Your task to perform on an android device: remove spam from my inbox in the gmail app Image 0: 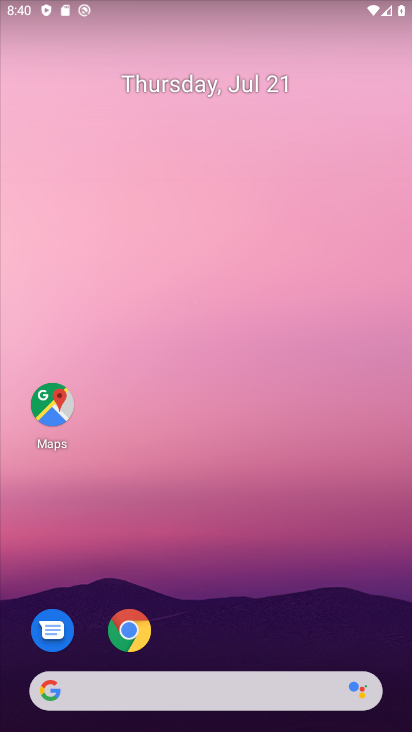
Step 0: drag from (153, 666) to (206, 219)
Your task to perform on an android device: remove spam from my inbox in the gmail app Image 1: 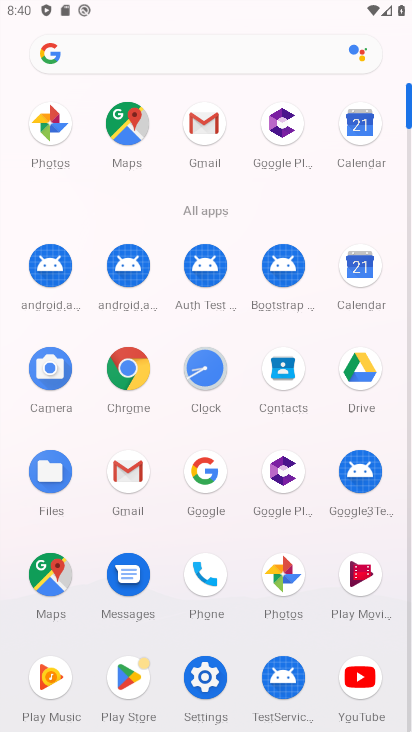
Step 1: click (128, 464)
Your task to perform on an android device: remove spam from my inbox in the gmail app Image 2: 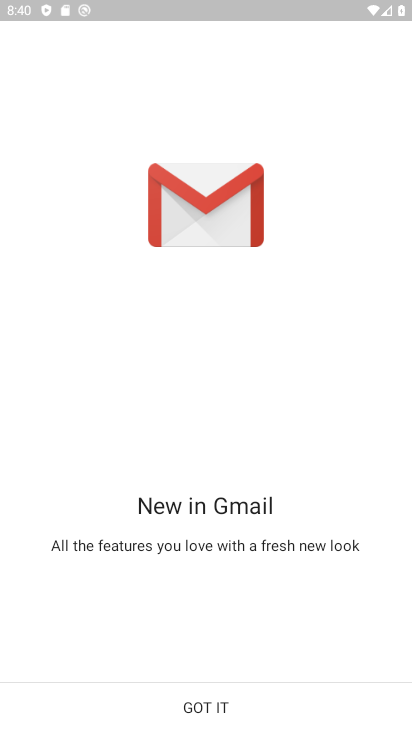
Step 2: click (195, 708)
Your task to perform on an android device: remove spam from my inbox in the gmail app Image 3: 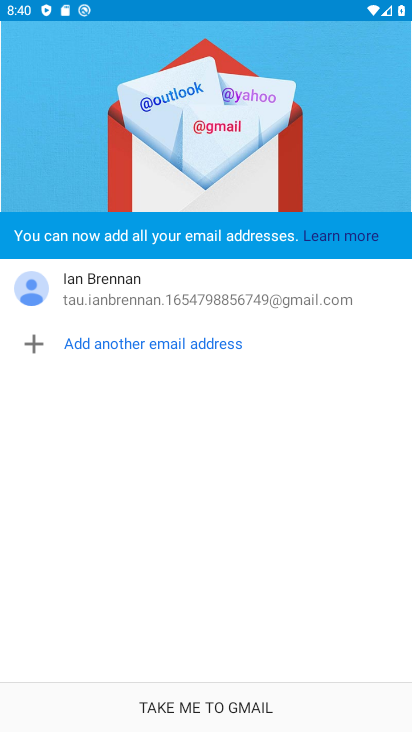
Step 3: click (195, 708)
Your task to perform on an android device: remove spam from my inbox in the gmail app Image 4: 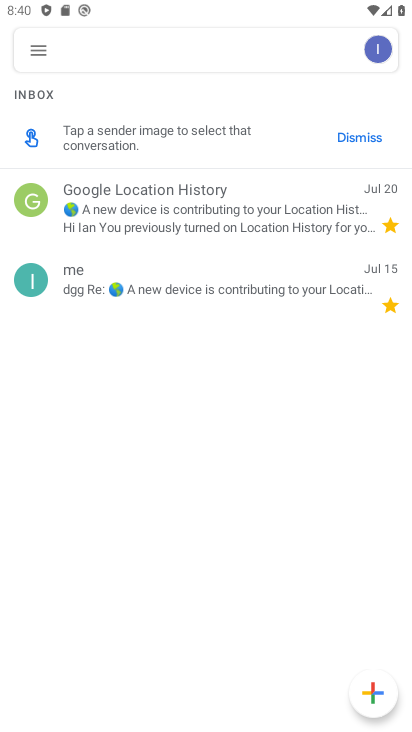
Step 4: click (37, 56)
Your task to perform on an android device: remove spam from my inbox in the gmail app Image 5: 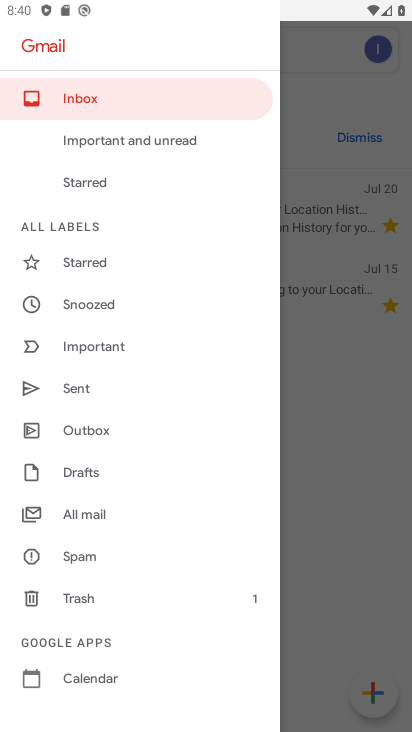
Step 5: click (86, 558)
Your task to perform on an android device: remove spam from my inbox in the gmail app Image 6: 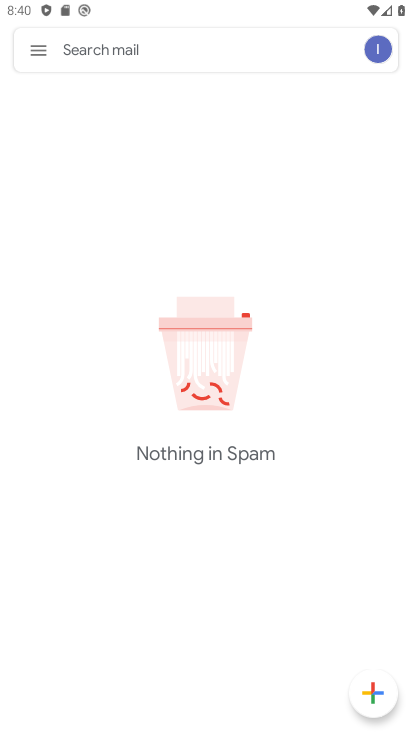
Step 6: task complete